Your task to perform on an android device: turn off airplane mode Image 0: 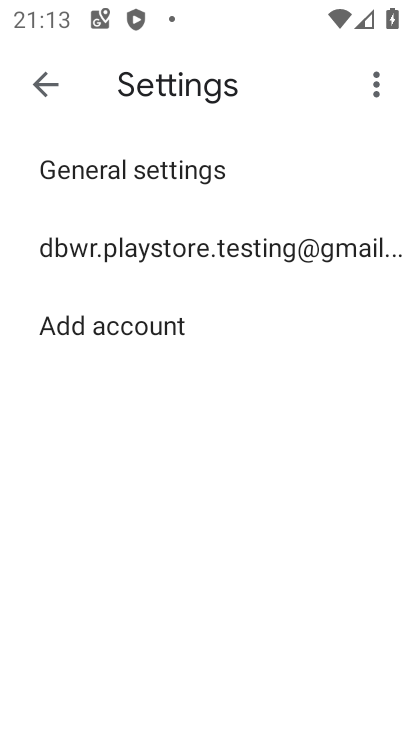
Step 0: drag from (281, 17) to (190, 569)
Your task to perform on an android device: turn off airplane mode Image 1: 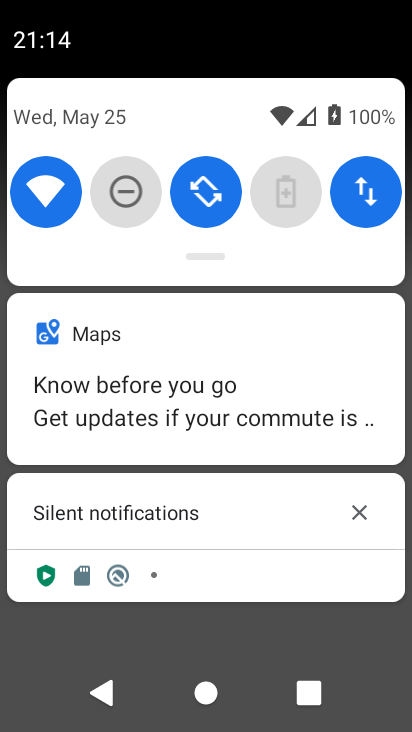
Step 1: task complete